Your task to perform on an android device: Open Youtube and go to "Your channel" Image 0: 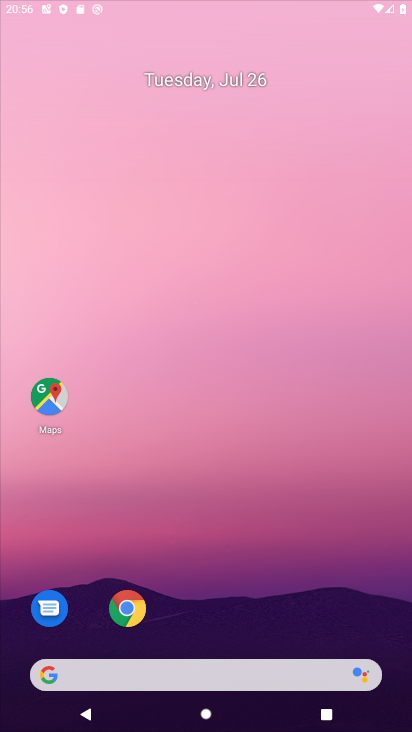
Step 0: drag from (145, 484) to (311, 72)
Your task to perform on an android device: Open Youtube and go to "Your channel" Image 1: 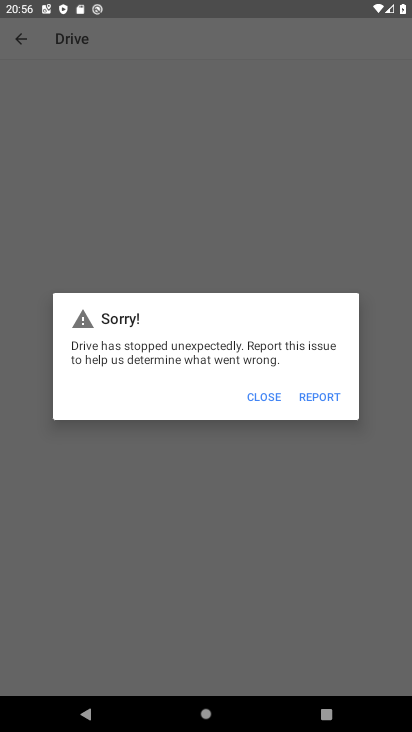
Step 1: press home button
Your task to perform on an android device: Open Youtube and go to "Your channel" Image 2: 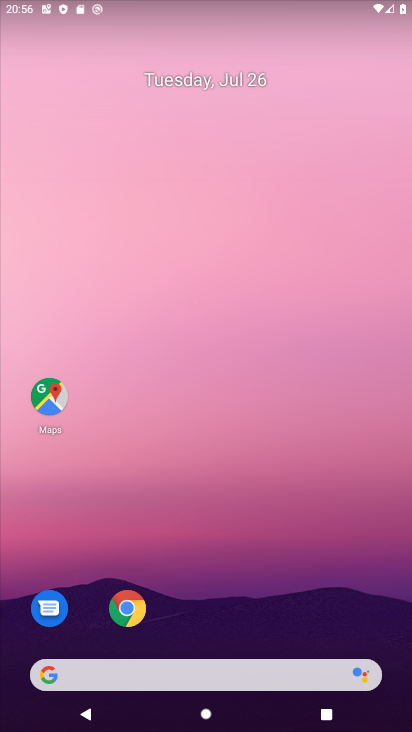
Step 2: drag from (28, 694) to (407, 286)
Your task to perform on an android device: Open Youtube and go to "Your channel" Image 3: 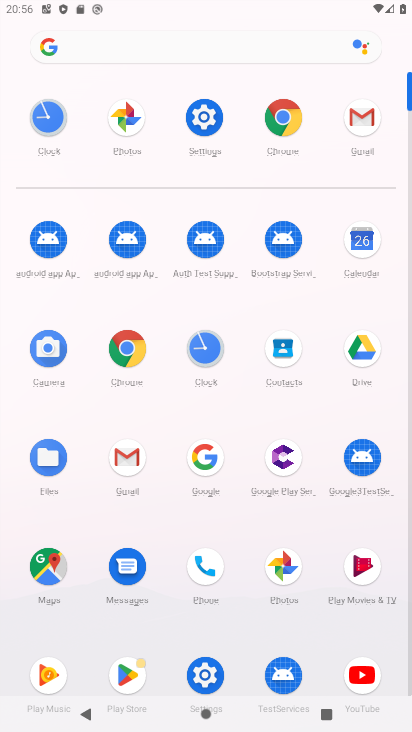
Step 3: click (362, 679)
Your task to perform on an android device: Open Youtube and go to "Your channel" Image 4: 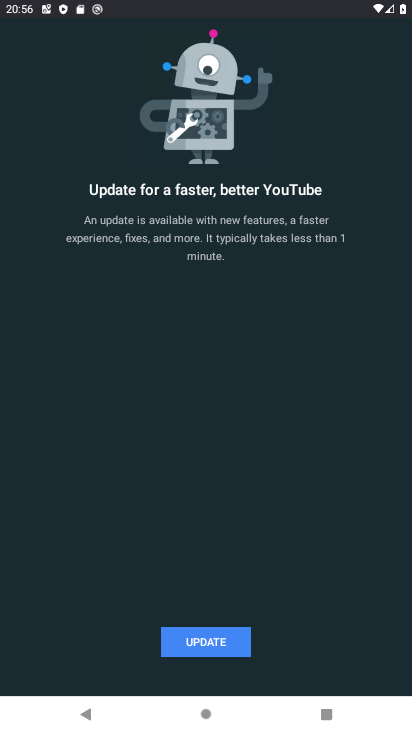
Step 4: click (205, 636)
Your task to perform on an android device: Open Youtube and go to "Your channel" Image 5: 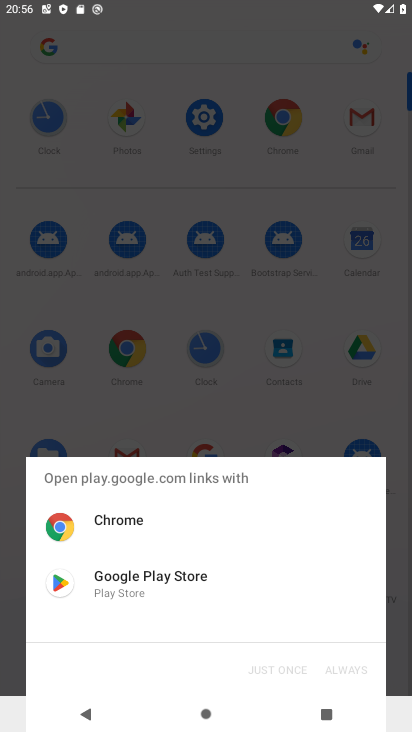
Step 5: click (135, 569)
Your task to perform on an android device: Open Youtube and go to "Your channel" Image 6: 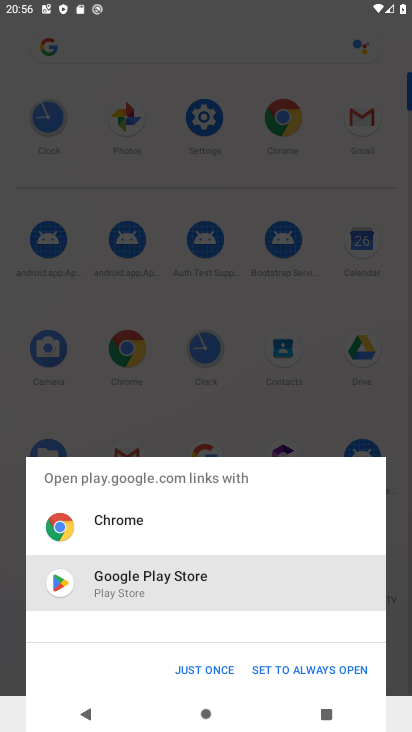
Step 6: click (210, 661)
Your task to perform on an android device: Open Youtube and go to "Your channel" Image 7: 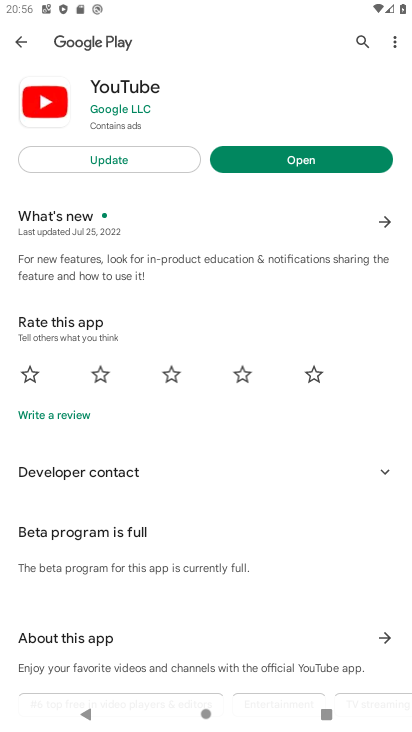
Step 7: click (308, 174)
Your task to perform on an android device: Open Youtube and go to "Your channel" Image 8: 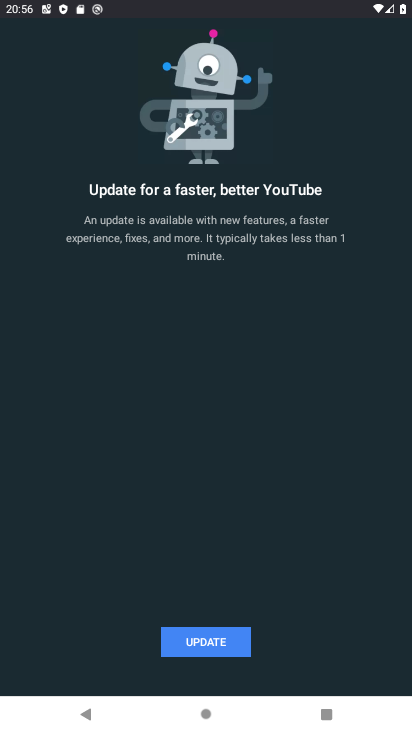
Step 8: task complete